Your task to perform on an android device: What is the recent news? Image 0: 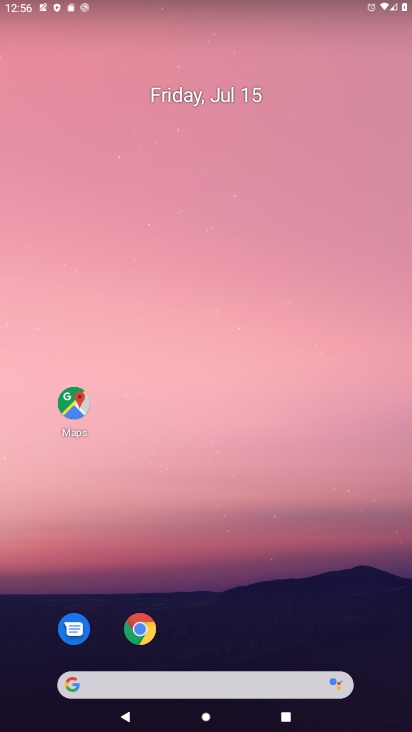
Step 0: press home button
Your task to perform on an android device: What is the recent news? Image 1: 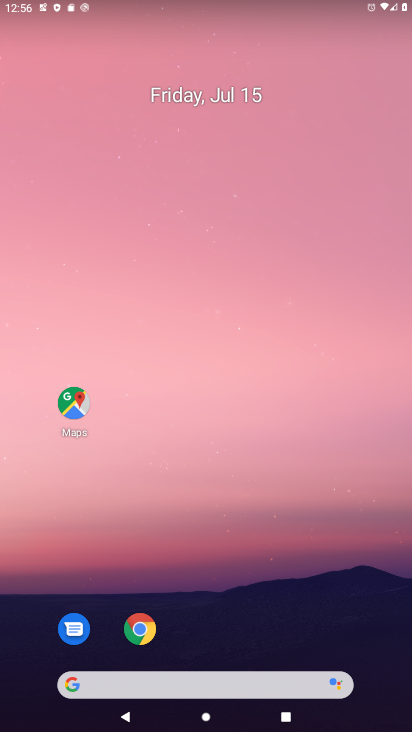
Step 1: click (78, 684)
Your task to perform on an android device: What is the recent news? Image 2: 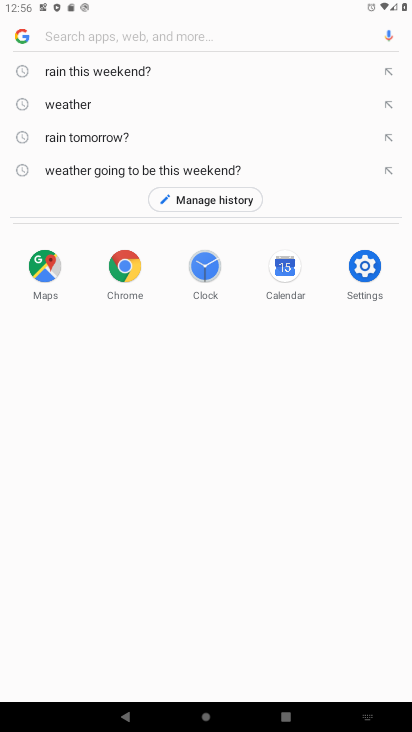
Step 2: type "recent news?"
Your task to perform on an android device: What is the recent news? Image 3: 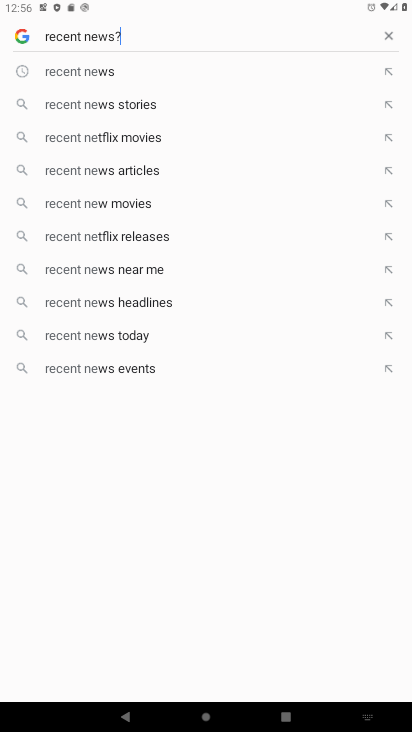
Step 3: press enter
Your task to perform on an android device: What is the recent news? Image 4: 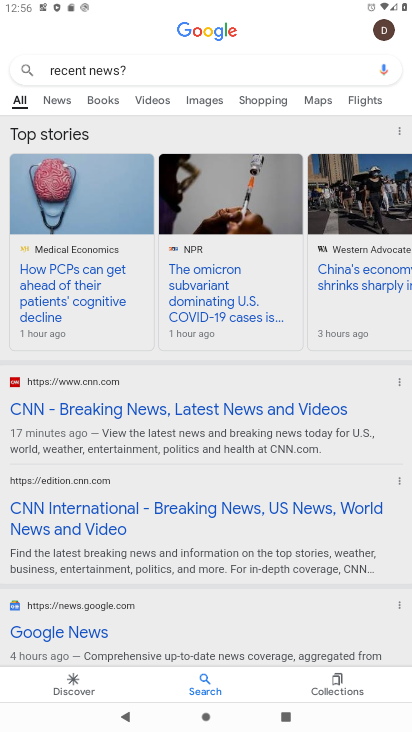
Step 4: task complete